Your task to perform on an android device: Open ESPN.com Image 0: 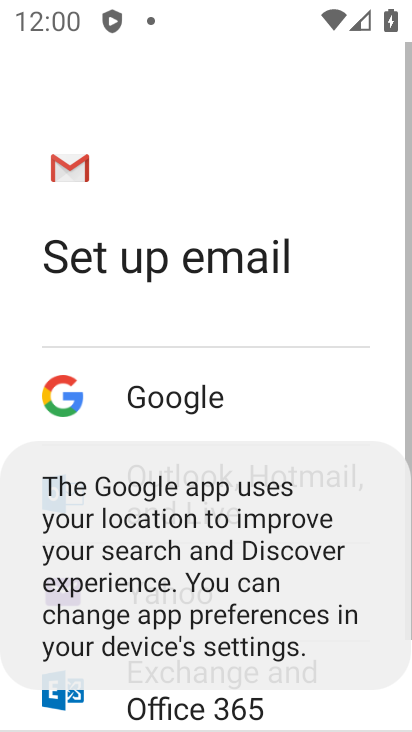
Step 0: press home button
Your task to perform on an android device: Open ESPN.com Image 1: 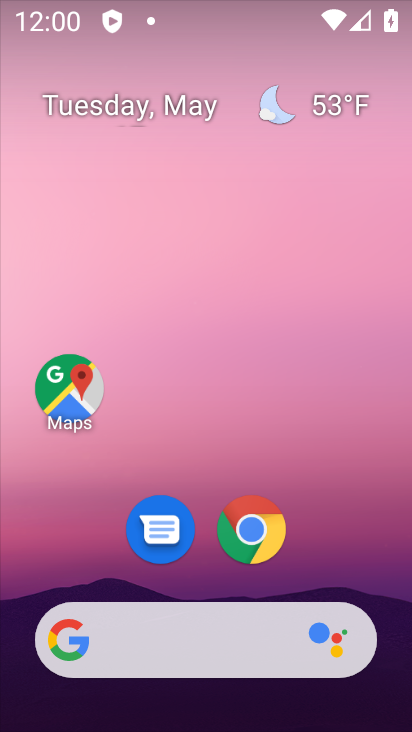
Step 1: click (243, 532)
Your task to perform on an android device: Open ESPN.com Image 2: 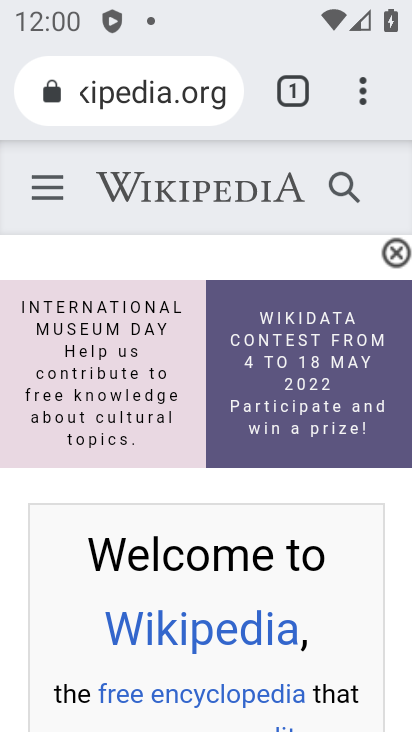
Step 2: click (200, 107)
Your task to perform on an android device: Open ESPN.com Image 3: 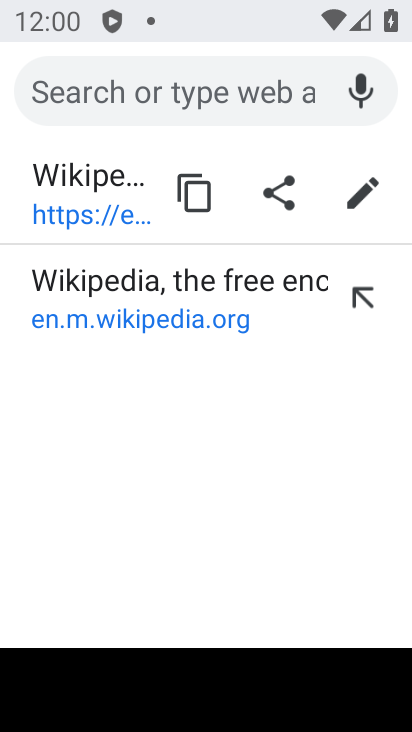
Step 3: type "espn.com"
Your task to perform on an android device: Open ESPN.com Image 4: 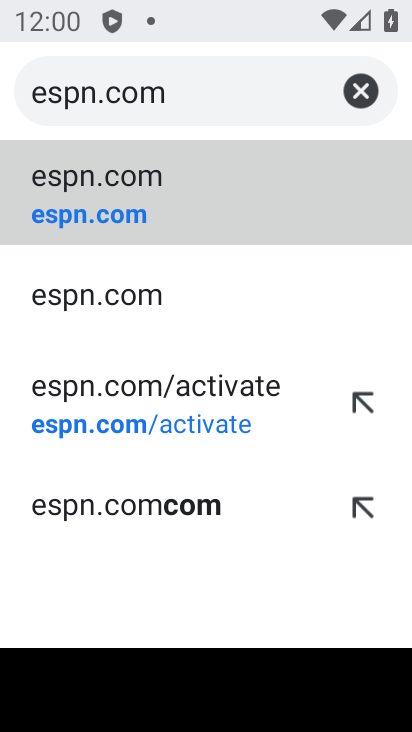
Step 4: click (223, 173)
Your task to perform on an android device: Open ESPN.com Image 5: 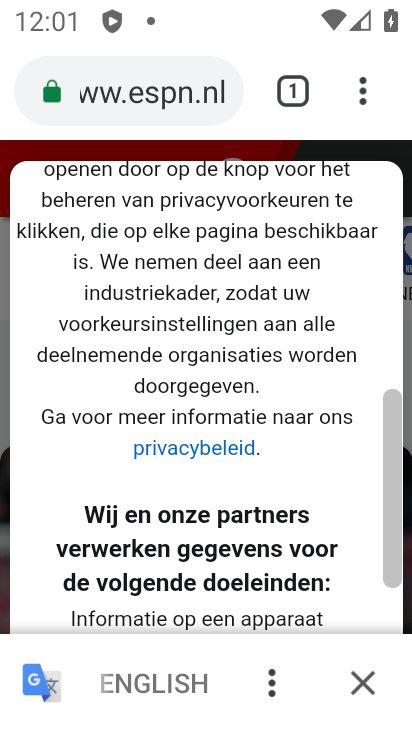
Step 5: task complete